Your task to perform on an android device: Search for Italian restaurants on Maps Image 0: 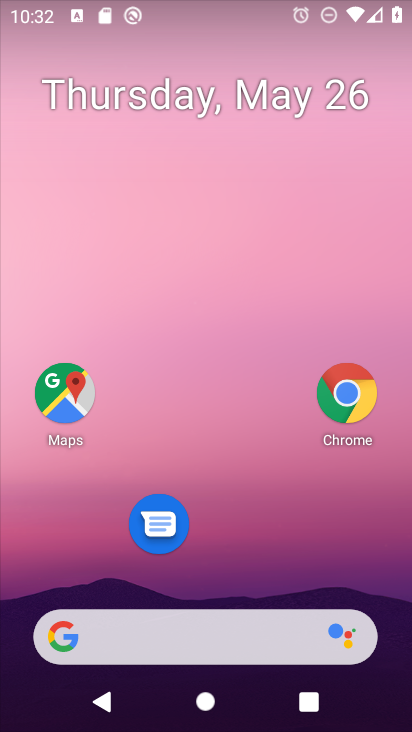
Step 0: click (72, 400)
Your task to perform on an android device: Search for Italian restaurants on Maps Image 1: 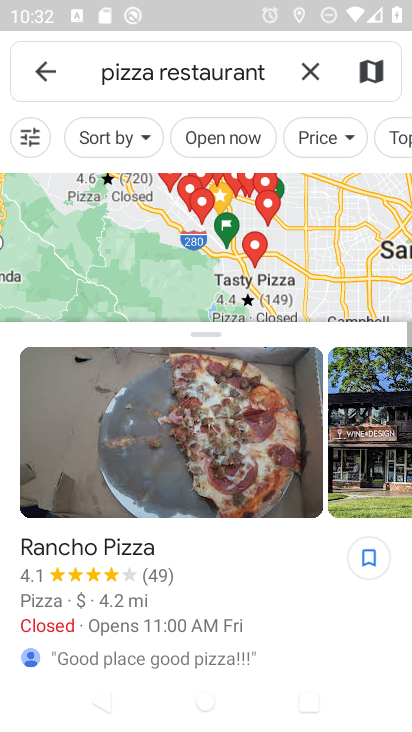
Step 1: click (313, 63)
Your task to perform on an android device: Search for Italian restaurants on Maps Image 2: 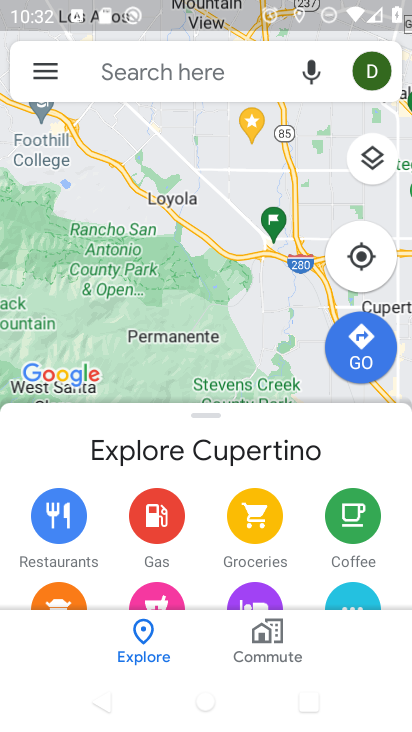
Step 2: click (190, 66)
Your task to perform on an android device: Search for Italian restaurants on Maps Image 3: 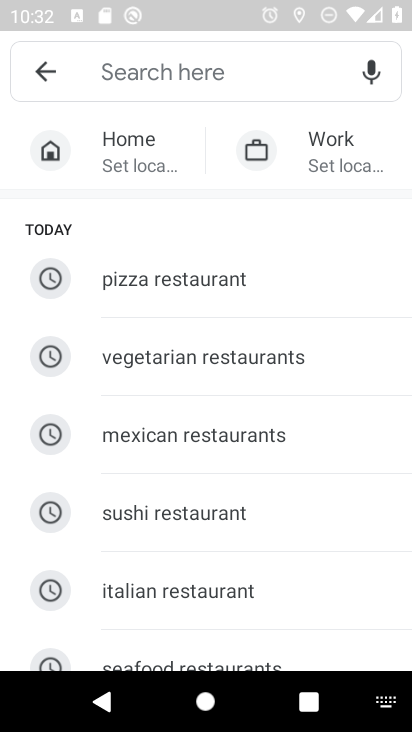
Step 3: click (207, 584)
Your task to perform on an android device: Search for Italian restaurants on Maps Image 4: 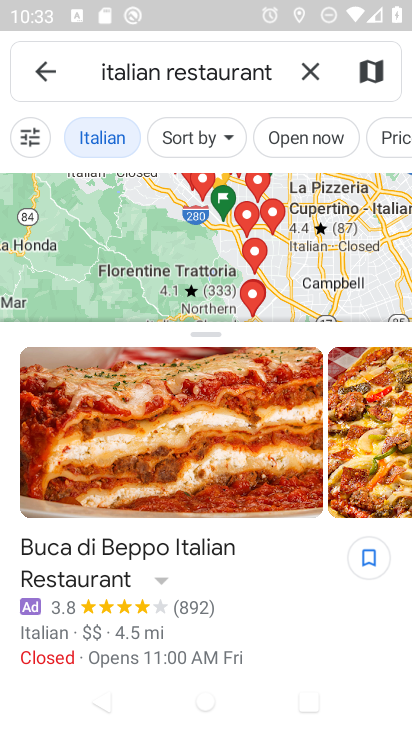
Step 4: task complete